Your task to perform on an android device: open sync settings in chrome Image 0: 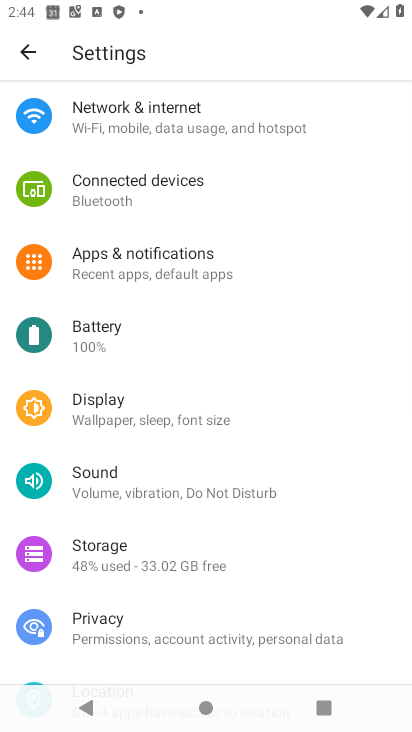
Step 0: press home button
Your task to perform on an android device: open sync settings in chrome Image 1: 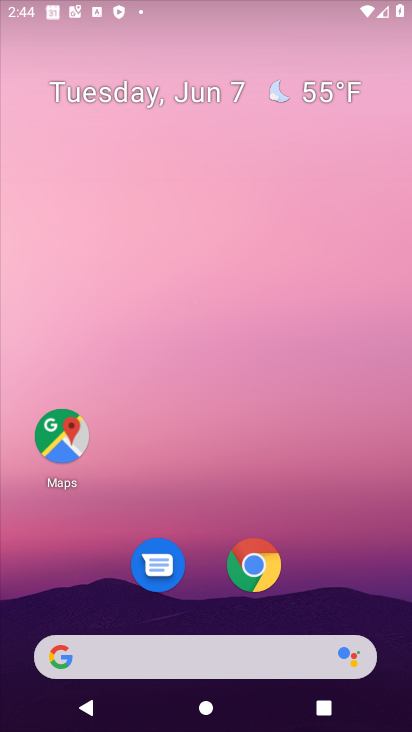
Step 1: drag from (224, 656) to (234, 5)
Your task to perform on an android device: open sync settings in chrome Image 2: 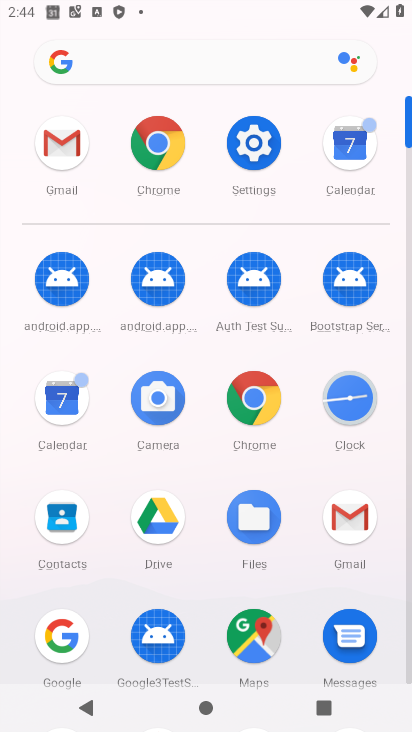
Step 2: click (254, 409)
Your task to perform on an android device: open sync settings in chrome Image 3: 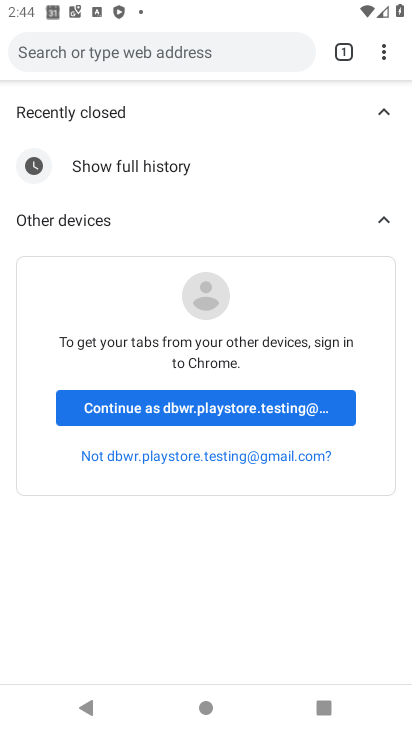
Step 3: drag from (384, 53) to (235, 435)
Your task to perform on an android device: open sync settings in chrome Image 4: 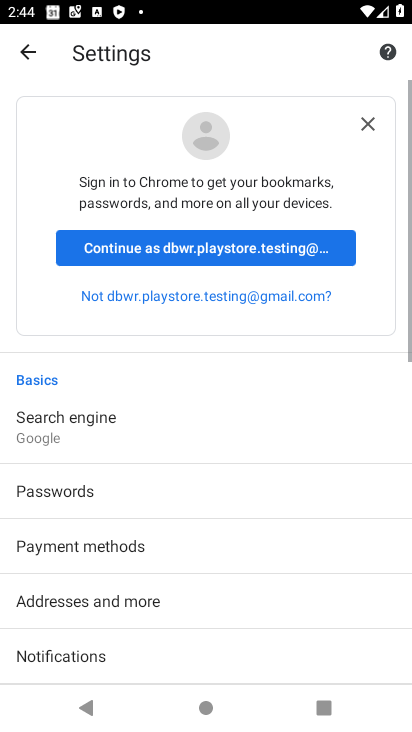
Step 4: drag from (270, 646) to (322, 96)
Your task to perform on an android device: open sync settings in chrome Image 5: 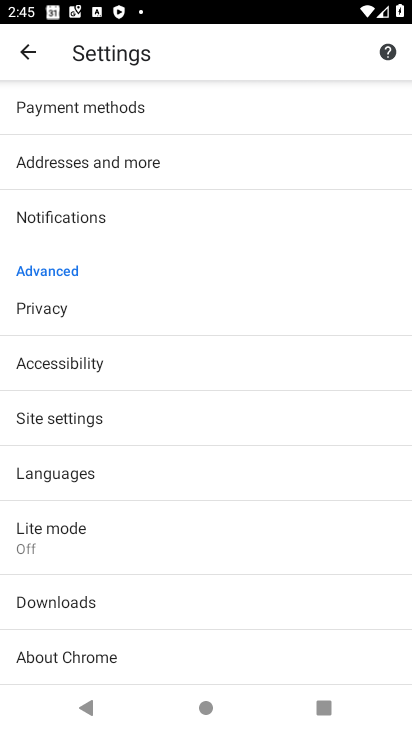
Step 5: drag from (201, 627) to (201, 473)
Your task to perform on an android device: open sync settings in chrome Image 6: 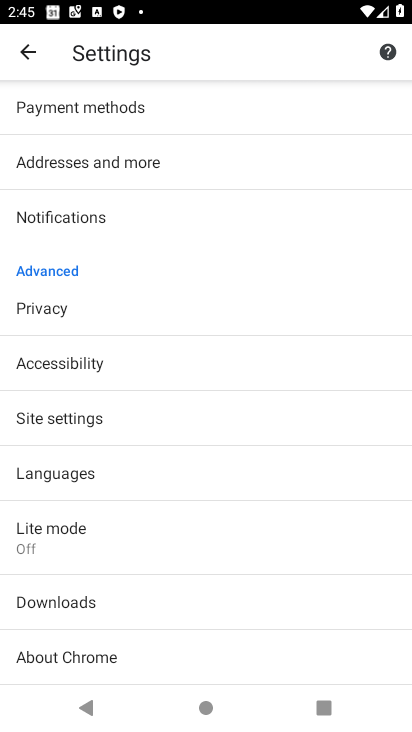
Step 6: click (172, 433)
Your task to perform on an android device: open sync settings in chrome Image 7: 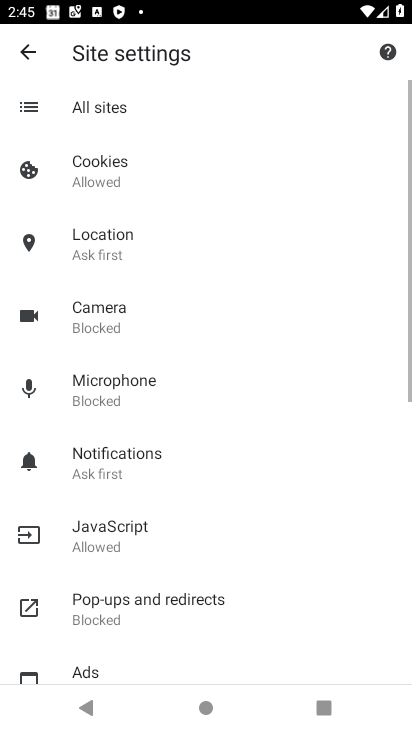
Step 7: drag from (170, 639) to (186, 289)
Your task to perform on an android device: open sync settings in chrome Image 8: 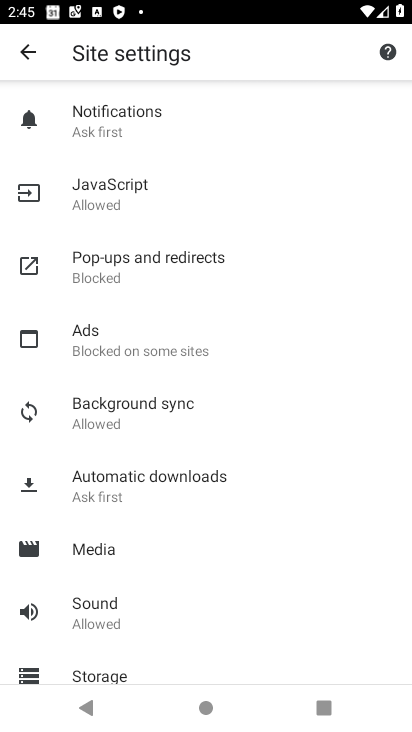
Step 8: click (203, 413)
Your task to perform on an android device: open sync settings in chrome Image 9: 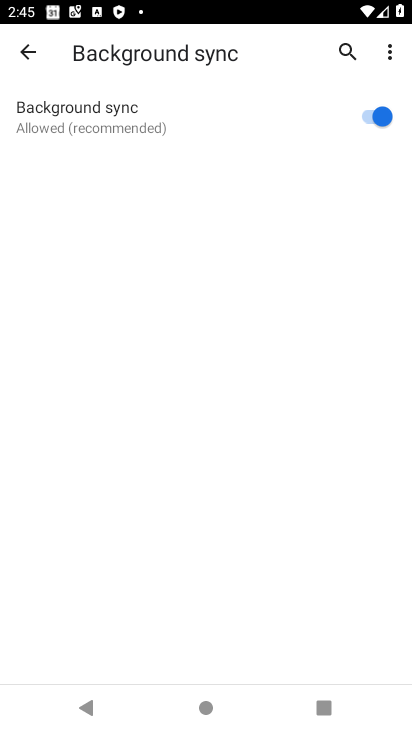
Step 9: task complete